Your task to perform on an android device: turn on location history Image 0: 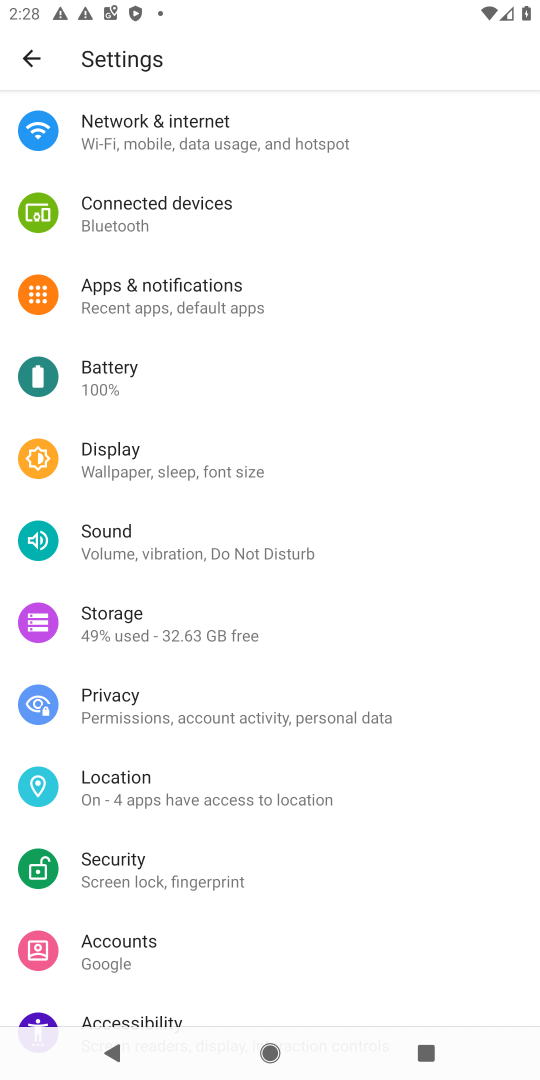
Step 0: click (118, 792)
Your task to perform on an android device: turn on location history Image 1: 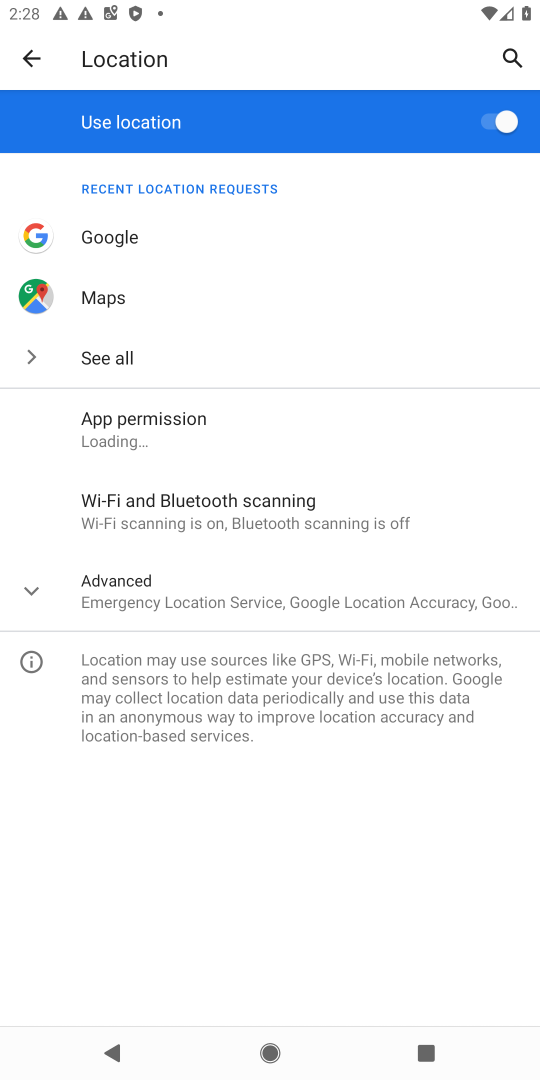
Step 1: click (98, 597)
Your task to perform on an android device: turn on location history Image 2: 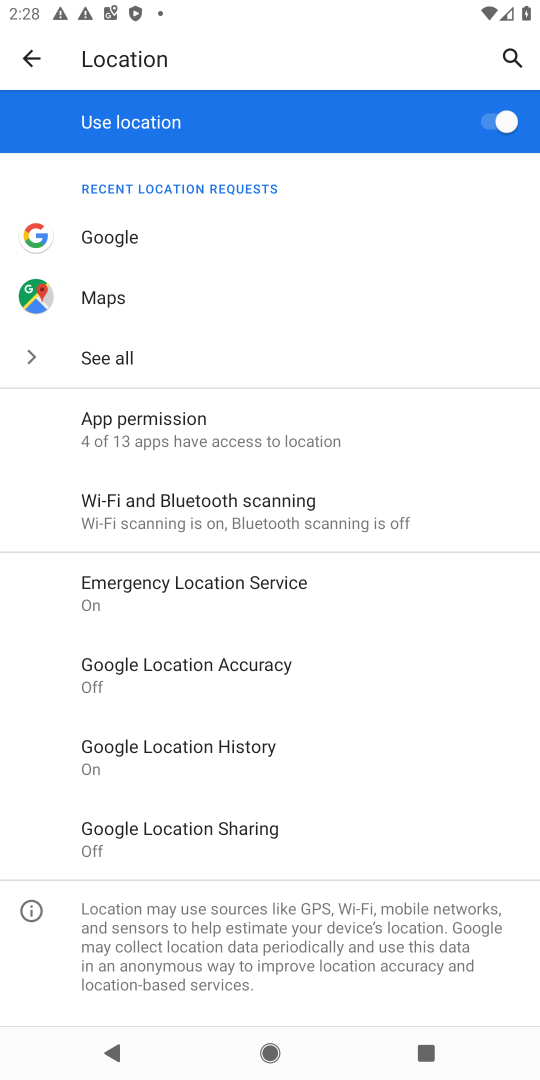
Step 2: click (206, 746)
Your task to perform on an android device: turn on location history Image 3: 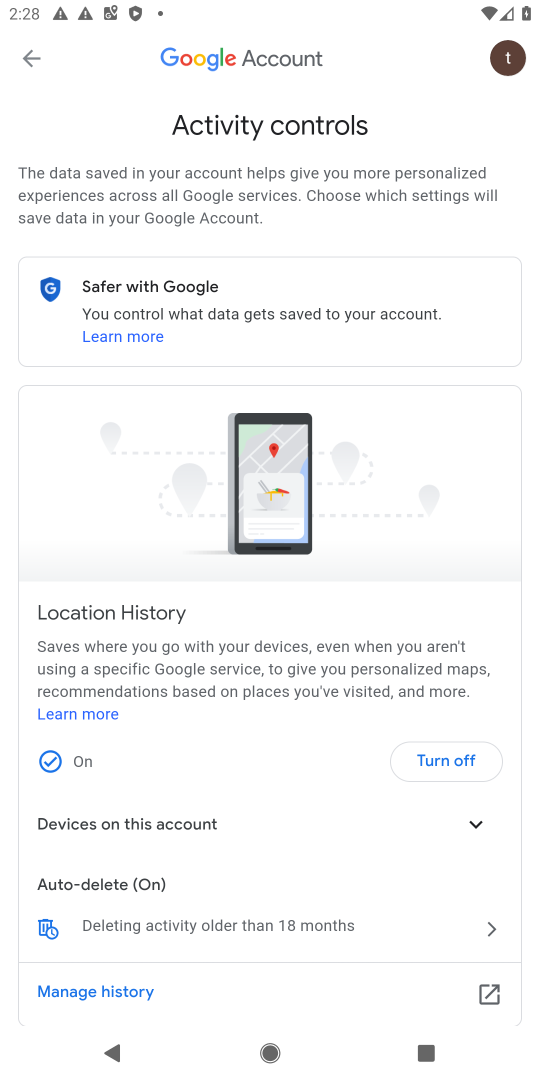
Step 3: task complete